Your task to perform on an android device: Go to internet settings Image 0: 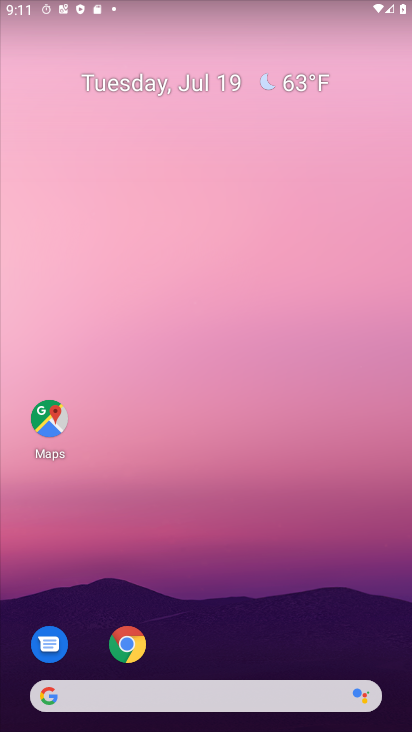
Step 0: press back button
Your task to perform on an android device: Go to internet settings Image 1: 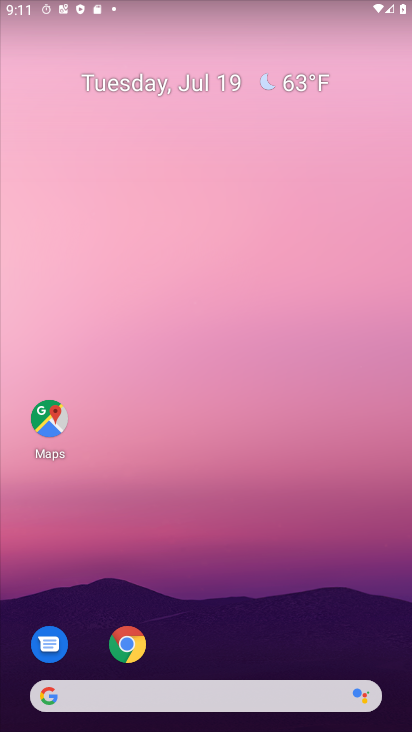
Step 1: drag from (216, 678) to (243, 293)
Your task to perform on an android device: Go to internet settings Image 2: 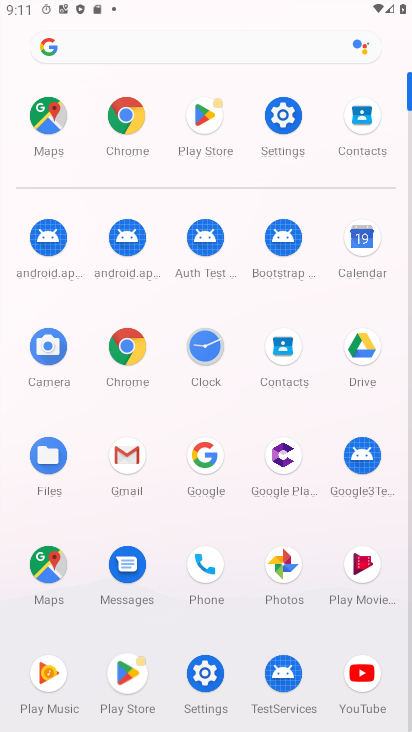
Step 2: click (286, 115)
Your task to perform on an android device: Go to internet settings Image 3: 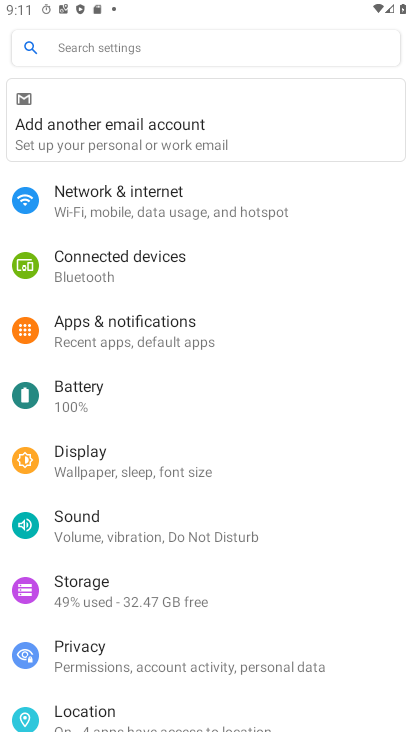
Step 3: click (140, 213)
Your task to perform on an android device: Go to internet settings Image 4: 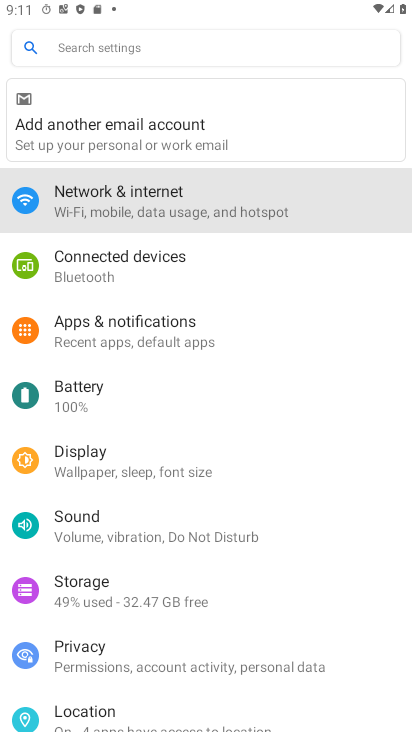
Step 4: click (155, 196)
Your task to perform on an android device: Go to internet settings Image 5: 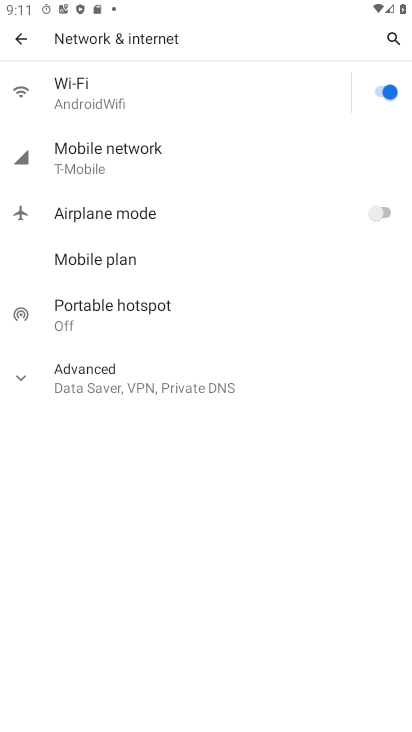
Step 5: task complete